Your task to perform on an android device: snooze an email in the gmail app Image 0: 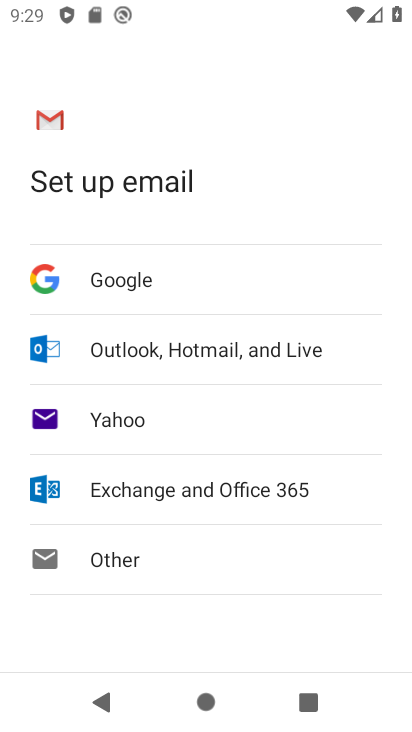
Step 0: press home button
Your task to perform on an android device: snooze an email in the gmail app Image 1: 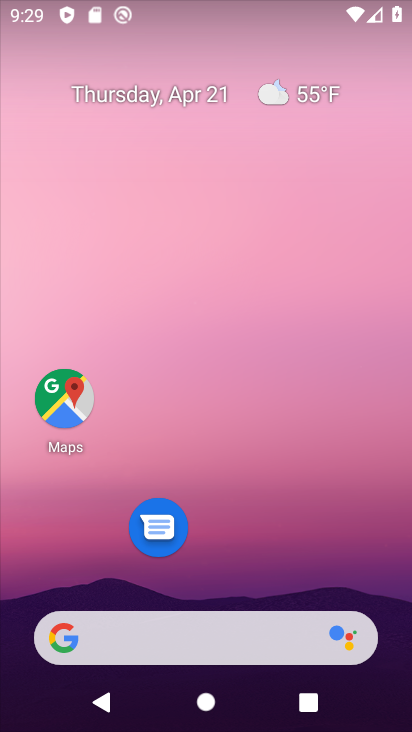
Step 1: drag from (206, 590) to (209, 50)
Your task to perform on an android device: snooze an email in the gmail app Image 2: 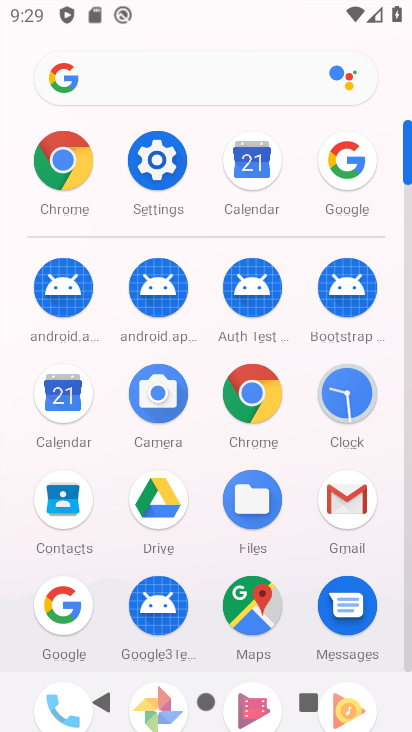
Step 2: click (335, 485)
Your task to perform on an android device: snooze an email in the gmail app Image 3: 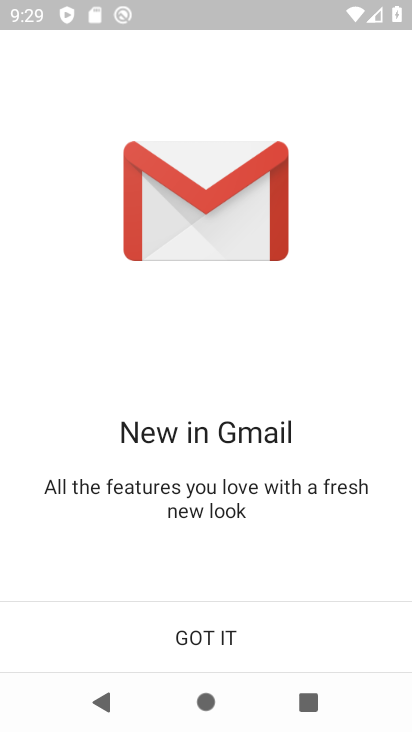
Step 3: click (261, 643)
Your task to perform on an android device: snooze an email in the gmail app Image 4: 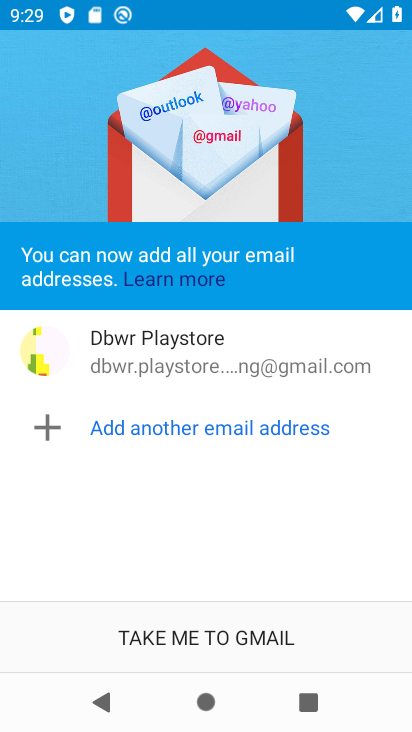
Step 4: click (230, 622)
Your task to perform on an android device: snooze an email in the gmail app Image 5: 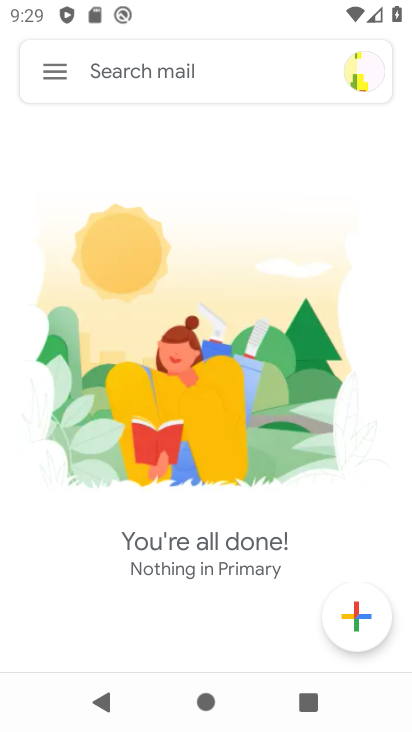
Step 5: click (54, 71)
Your task to perform on an android device: snooze an email in the gmail app Image 6: 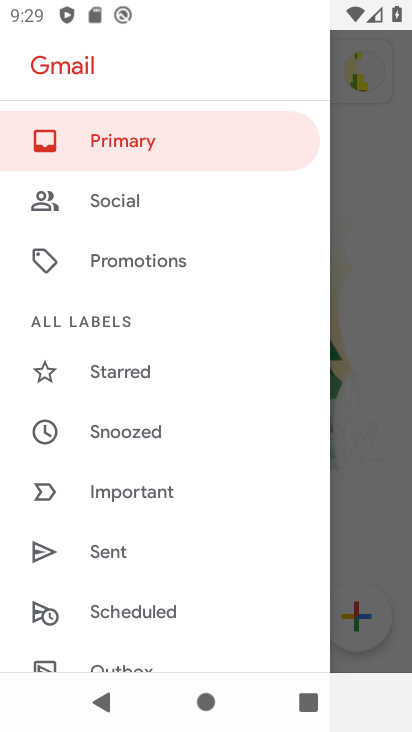
Step 6: drag from (147, 533) to (161, 379)
Your task to perform on an android device: snooze an email in the gmail app Image 7: 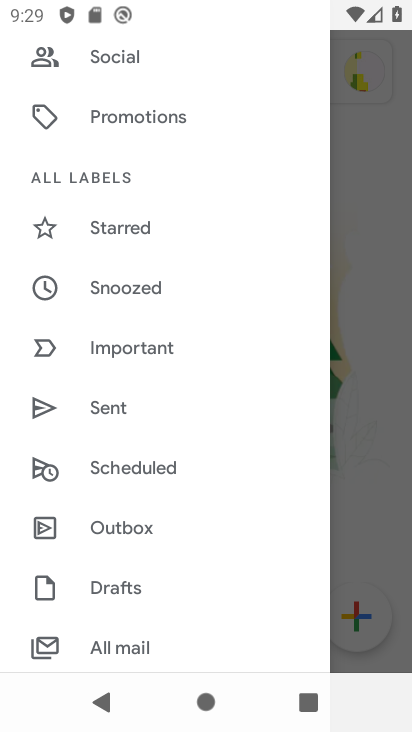
Step 7: click (119, 639)
Your task to perform on an android device: snooze an email in the gmail app Image 8: 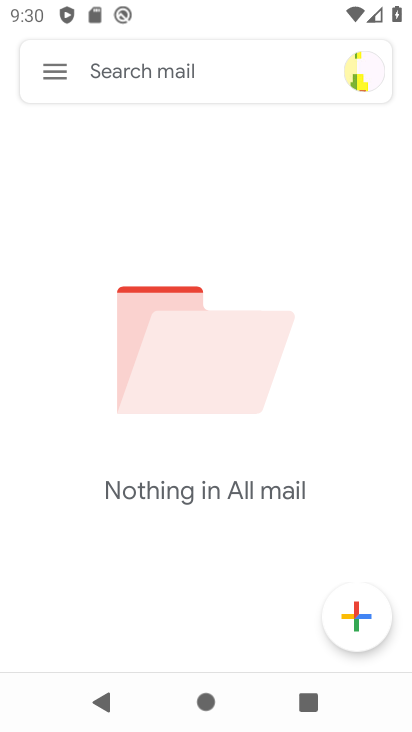
Step 8: task complete